Your task to perform on an android device: Show me recent news Image 0: 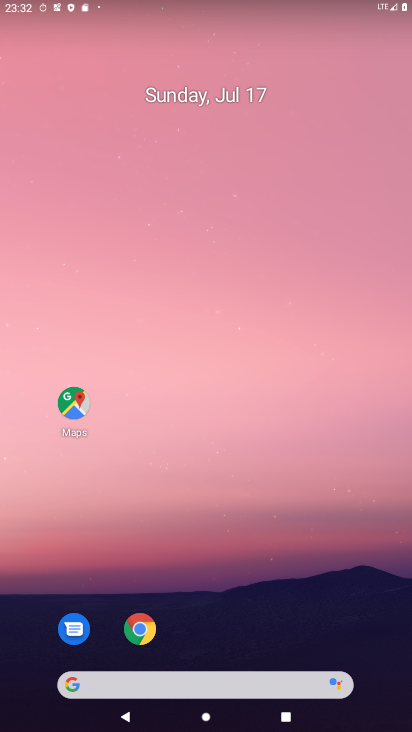
Step 0: drag from (14, 277) to (411, 453)
Your task to perform on an android device: Show me recent news Image 1: 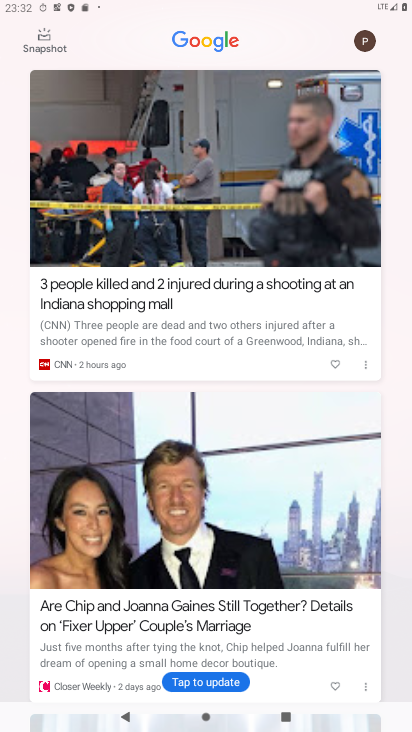
Step 1: task complete